Your task to perform on an android device: Open sound settings Image 0: 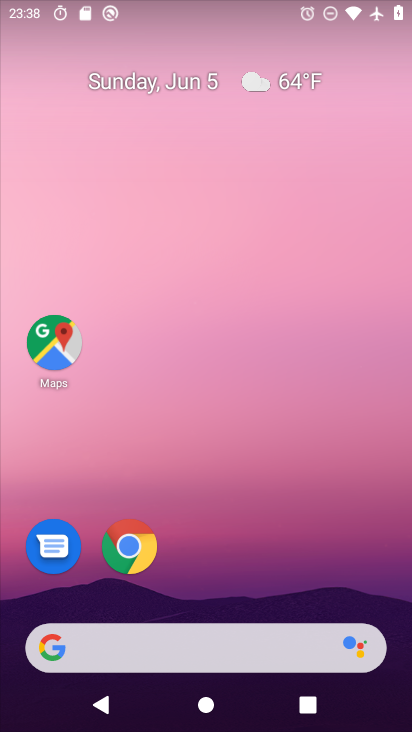
Step 0: drag from (170, 585) to (292, 62)
Your task to perform on an android device: Open sound settings Image 1: 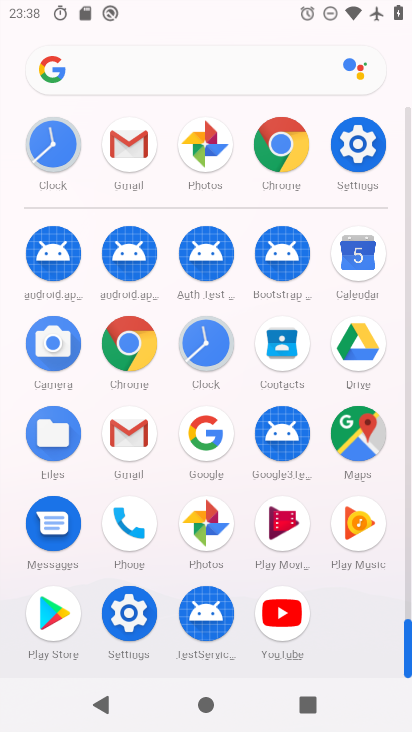
Step 1: click (353, 136)
Your task to perform on an android device: Open sound settings Image 2: 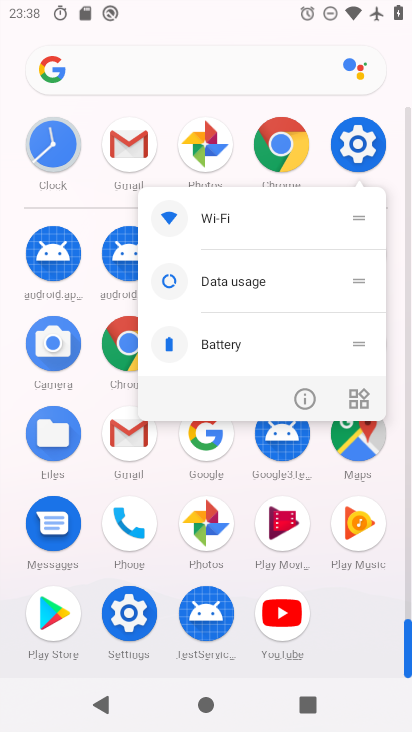
Step 2: click (298, 410)
Your task to perform on an android device: Open sound settings Image 3: 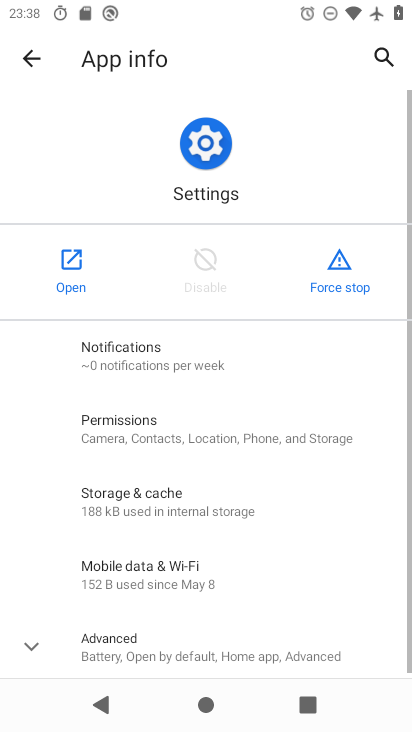
Step 3: click (81, 259)
Your task to perform on an android device: Open sound settings Image 4: 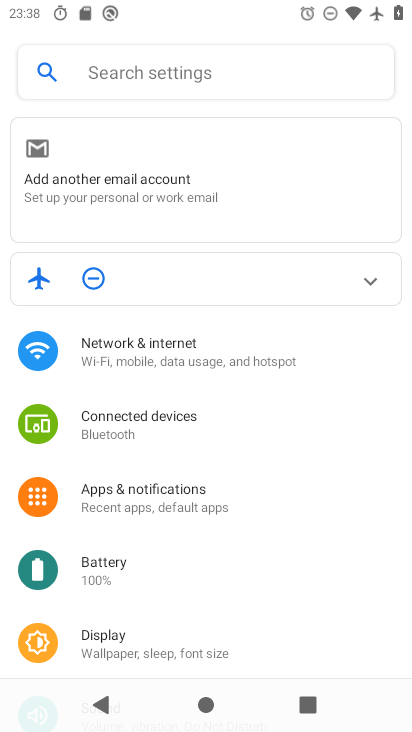
Step 4: drag from (178, 558) to (211, 251)
Your task to perform on an android device: Open sound settings Image 5: 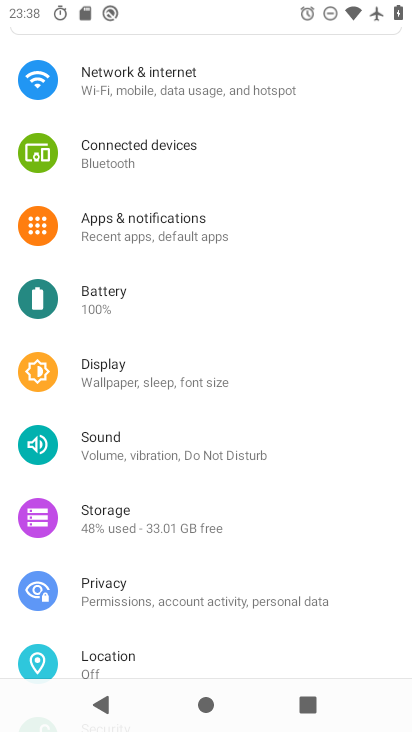
Step 5: click (105, 445)
Your task to perform on an android device: Open sound settings Image 6: 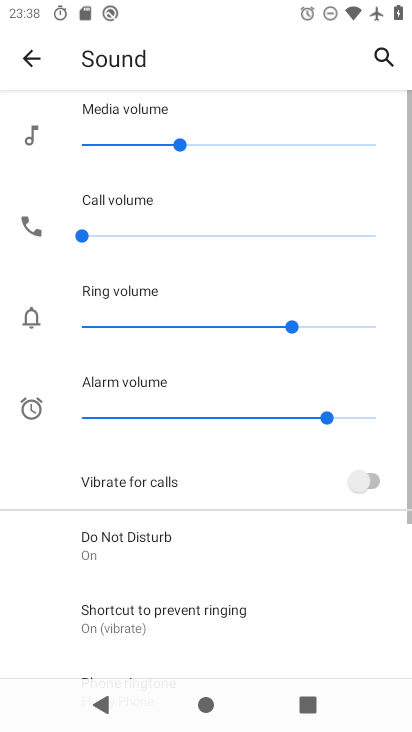
Step 6: task complete